Your task to perform on an android device: Search for seafood restaurants on Google Maps Image 0: 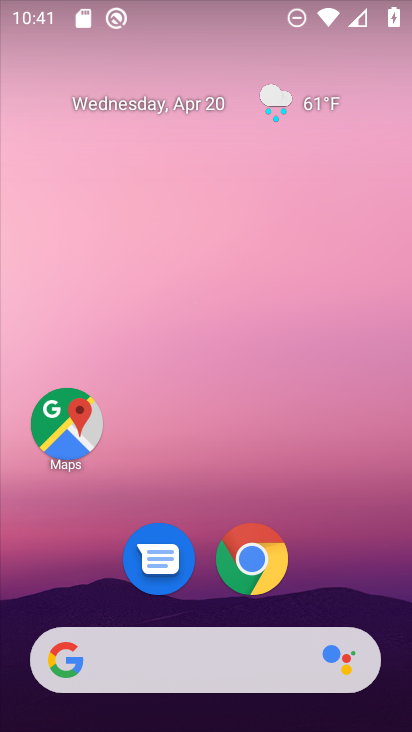
Step 0: click (64, 422)
Your task to perform on an android device: Search for seafood restaurants on Google Maps Image 1: 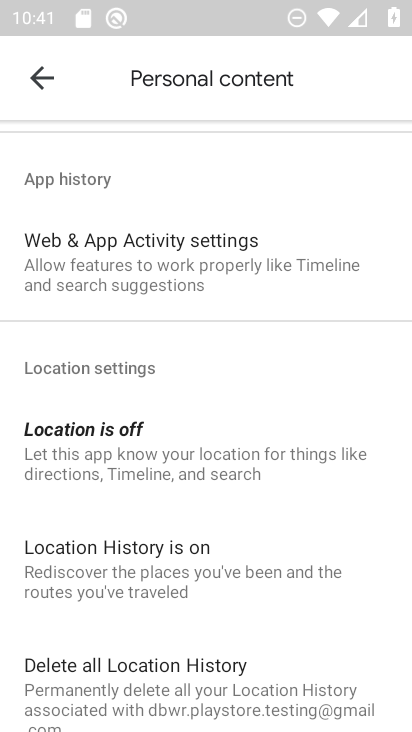
Step 1: press back button
Your task to perform on an android device: Search for seafood restaurants on Google Maps Image 2: 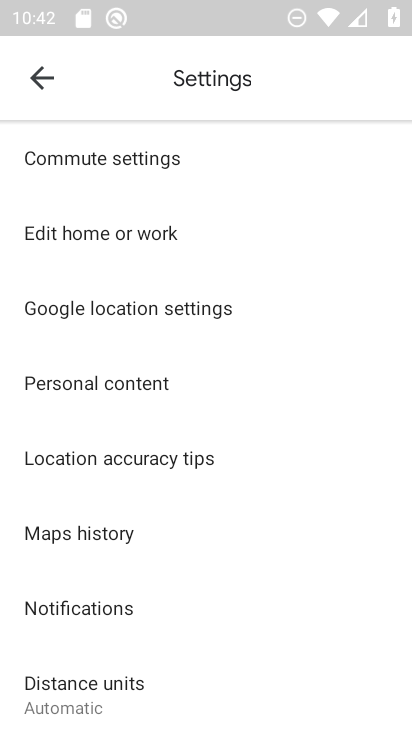
Step 2: press back button
Your task to perform on an android device: Search for seafood restaurants on Google Maps Image 3: 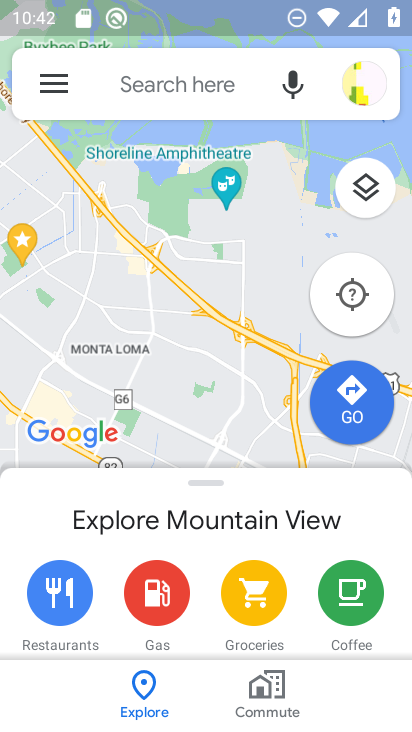
Step 3: click (134, 78)
Your task to perform on an android device: Search for seafood restaurants on Google Maps Image 4: 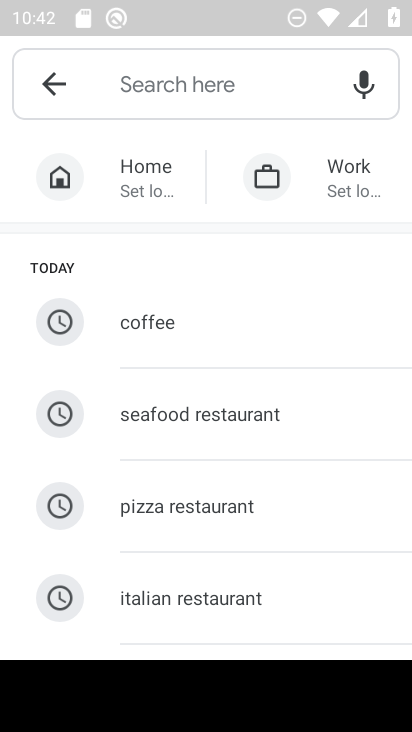
Step 4: type "seafood restaurants"
Your task to perform on an android device: Search for seafood restaurants on Google Maps Image 5: 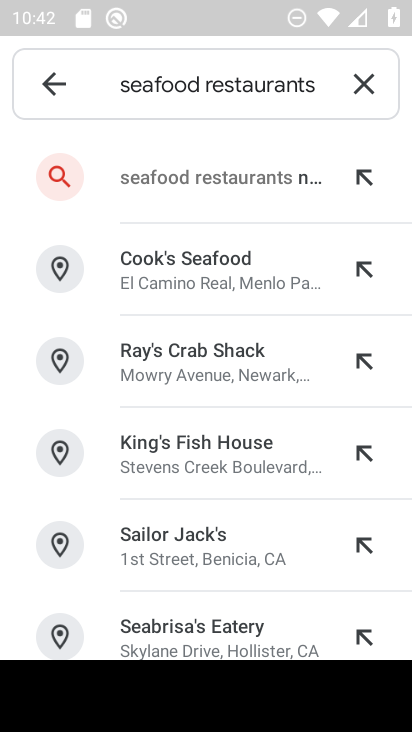
Step 5: click (243, 167)
Your task to perform on an android device: Search for seafood restaurants on Google Maps Image 6: 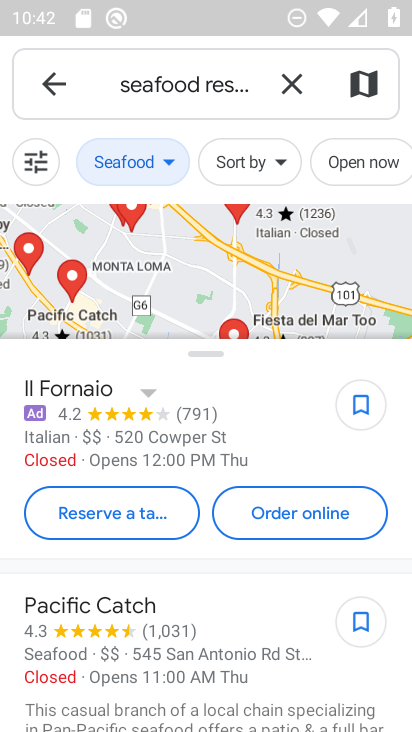
Step 6: task complete